Your task to perform on an android device: toggle priority inbox in the gmail app Image 0: 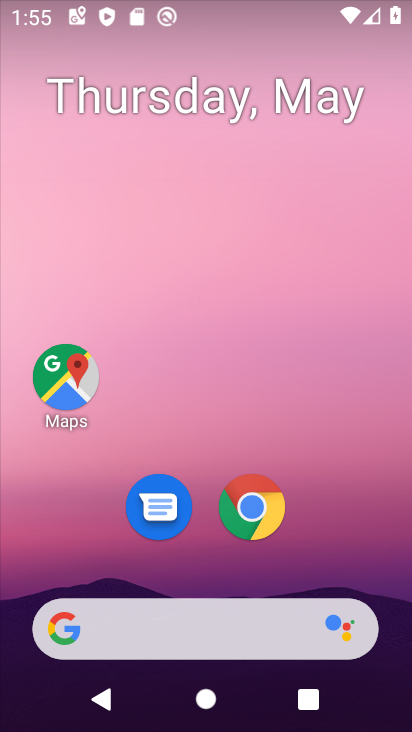
Step 0: drag from (312, 686) to (358, 29)
Your task to perform on an android device: toggle priority inbox in the gmail app Image 1: 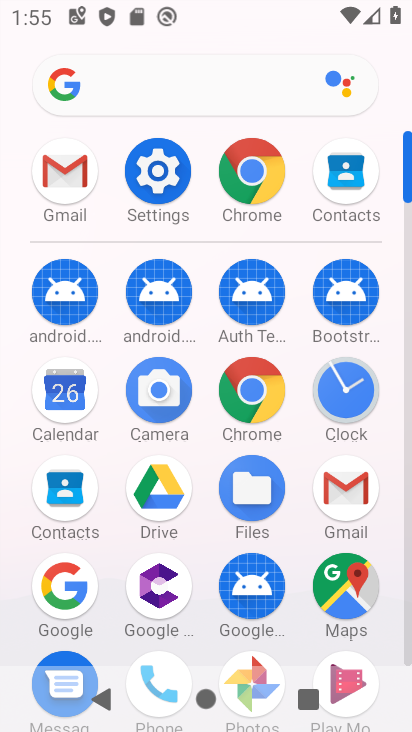
Step 1: click (361, 501)
Your task to perform on an android device: toggle priority inbox in the gmail app Image 2: 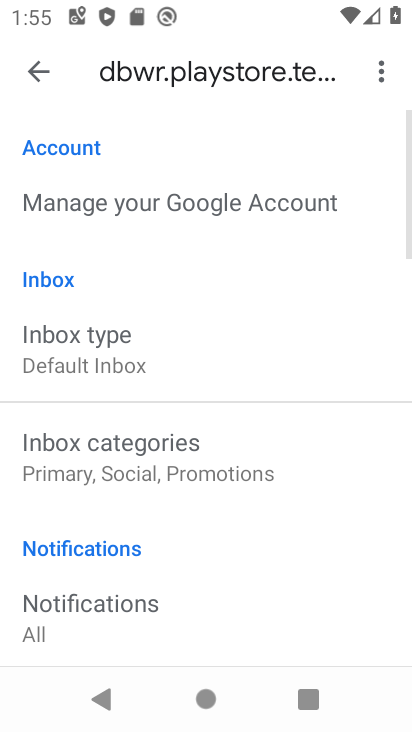
Step 2: click (144, 355)
Your task to perform on an android device: toggle priority inbox in the gmail app Image 3: 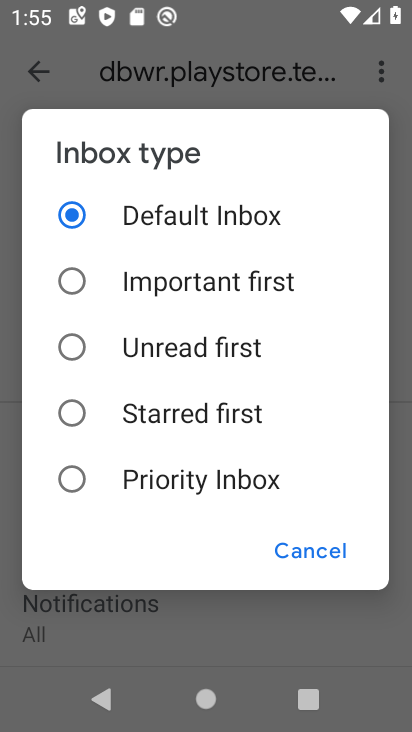
Step 3: click (107, 488)
Your task to perform on an android device: toggle priority inbox in the gmail app Image 4: 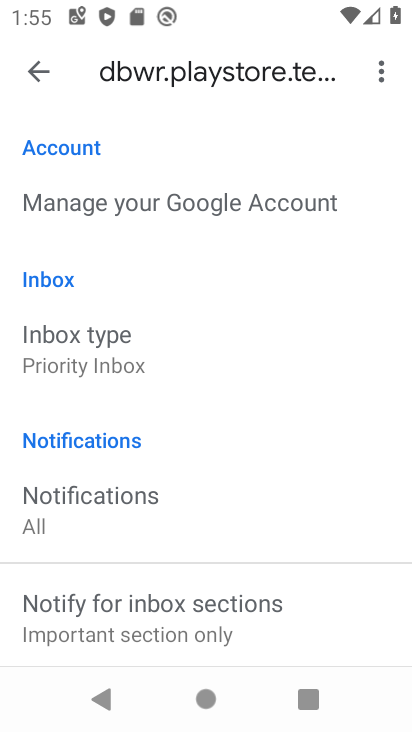
Step 4: task complete